Your task to perform on an android device: choose inbox layout in the gmail app Image 0: 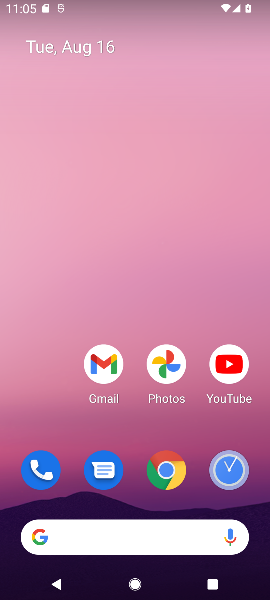
Step 0: click (105, 354)
Your task to perform on an android device: choose inbox layout in the gmail app Image 1: 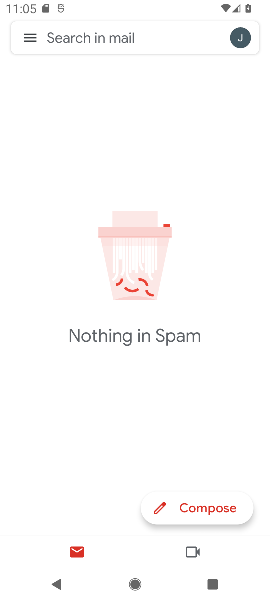
Step 1: click (30, 39)
Your task to perform on an android device: choose inbox layout in the gmail app Image 2: 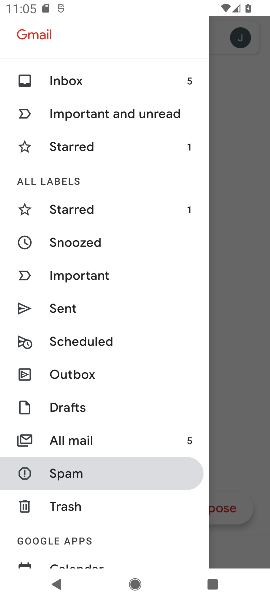
Step 2: drag from (119, 389) to (111, 163)
Your task to perform on an android device: choose inbox layout in the gmail app Image 3: 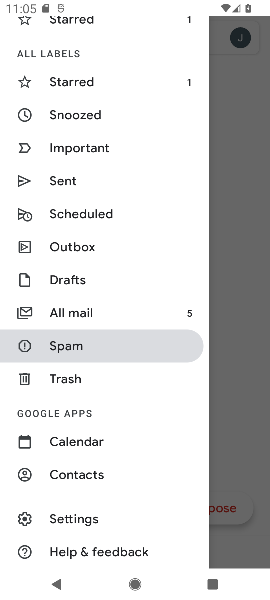
Step 3: click (81, 518)
Your task to perform on an android device: choose inbox layout in the gmail app Image 4: 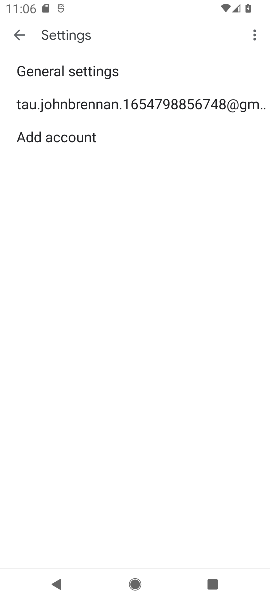
Step 4: click (119, 97)
Your task to perform on an android device: choose inbox layout in the gmail app Image 5: 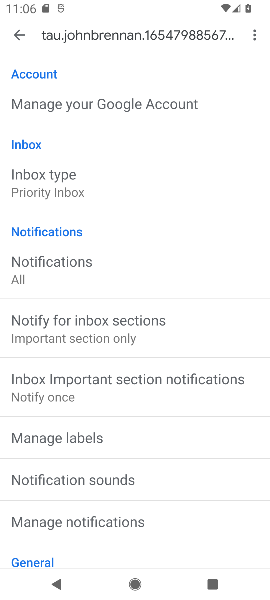
Step 5: drag from (148, 464) to (139, 115)
Your task to perform on an android device: choose inbox layout in the gmail app Image 6: 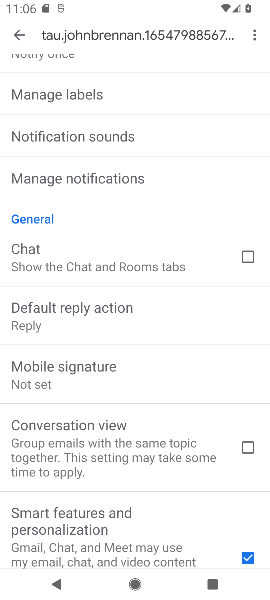
Step 6: drag from (146, 426) to (137, 198)
Your task to perform on an android device: choose inbox layout in the gmail app Image 7: 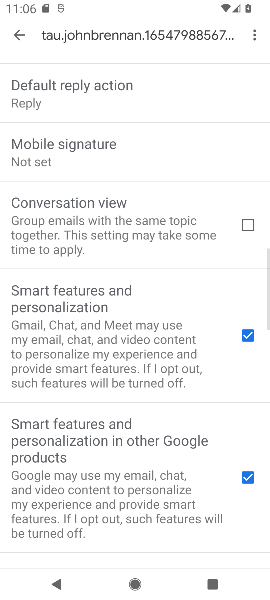
Step 7: drag from (138, 154) to (161, 512)
Your task to perform on an android device: choose inbox layout in the gmail app Image 8: 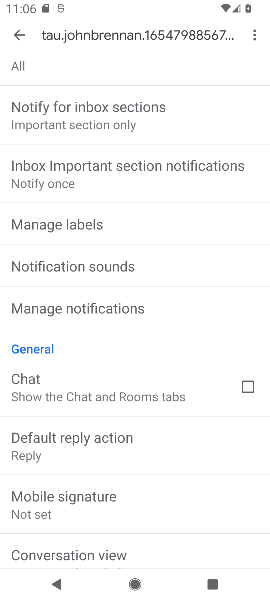
Step 8: drag from (120, 194) to (145, 491)
Your task to perform on an android device: choose inbox layout in the gmail app Image 9: 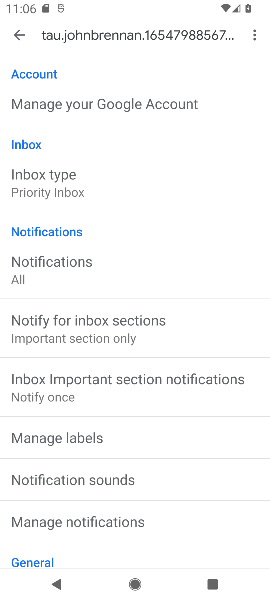
Step 9: click (67, 182)
Your task to perform on an android device: choose inbox layout in the gmail app Image 10: 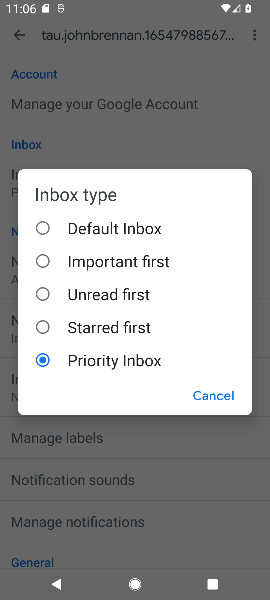
Step 10: click (40, 230)
Your task to perform on an android device: choose inbox layout in the gmail app Image 11: 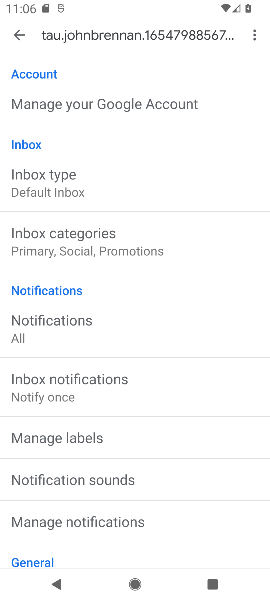
Step 11: task complete